Your task to perform on an android device: What's the weather? Image 0: 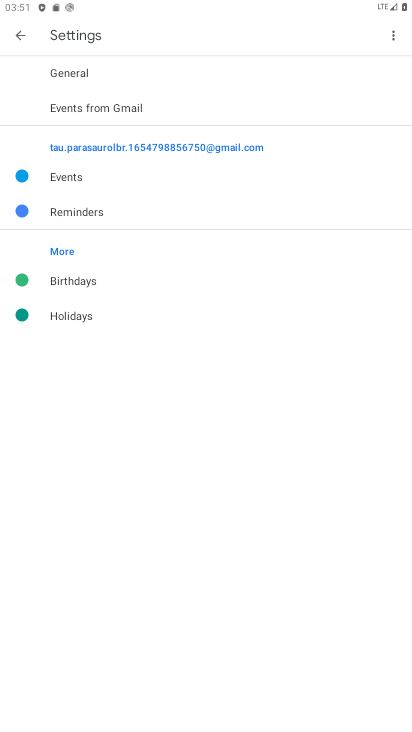
Step 0: press home button
Your task to perform on an android device: What's the weather? Image 1: 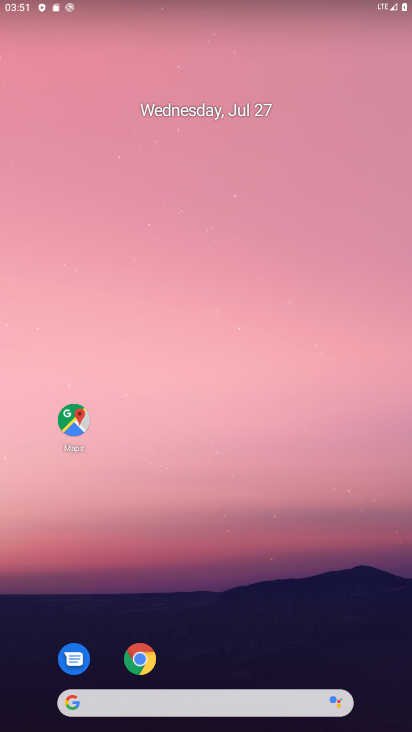
Step 1: click (136, 703)
Your task to perform on an android device: What's the weather? Image 2: 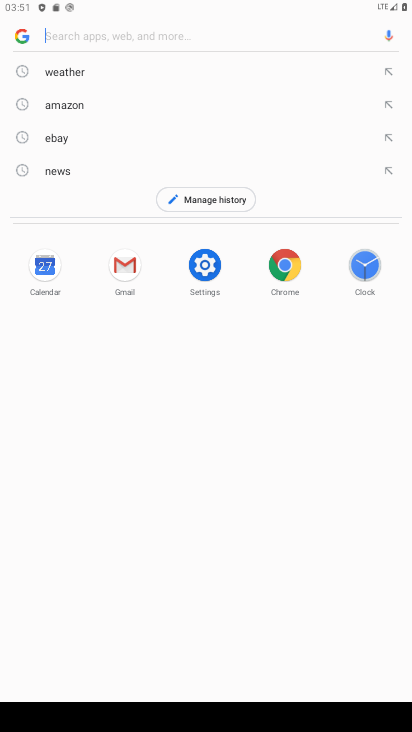
Step 2: click (65, 80)
Your task to perform on an android device: What's the weather? Image 3: 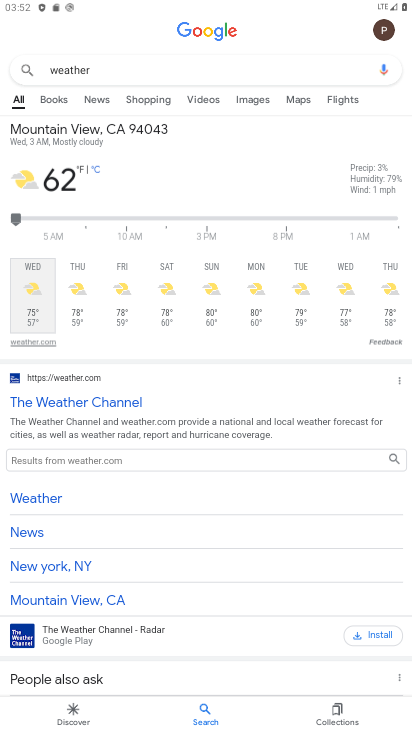
Step 3: task complete